Your task to perform on an android device: create a new album in the google photos Image 0: 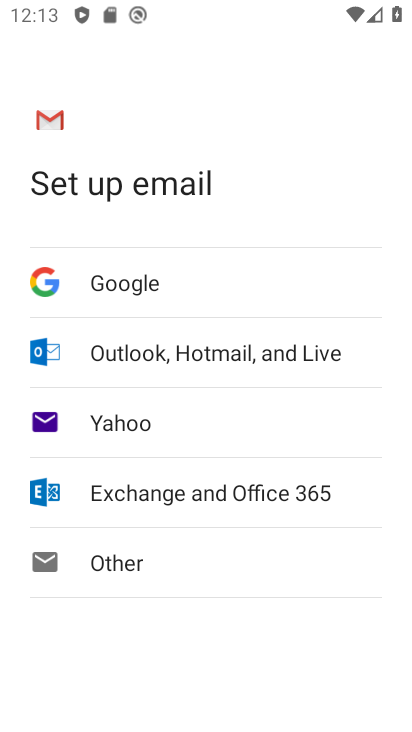
Step 0: press back button
Your task to perform on an android device: create a new album in the google photos Image 1: 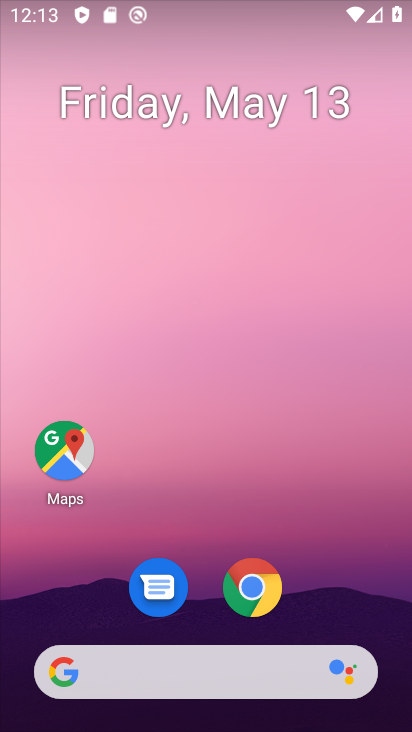
Step 1: drag from (187, 626) to (327, 162)
Your task to perform on an android device: create a new album in the google photos Image 2: 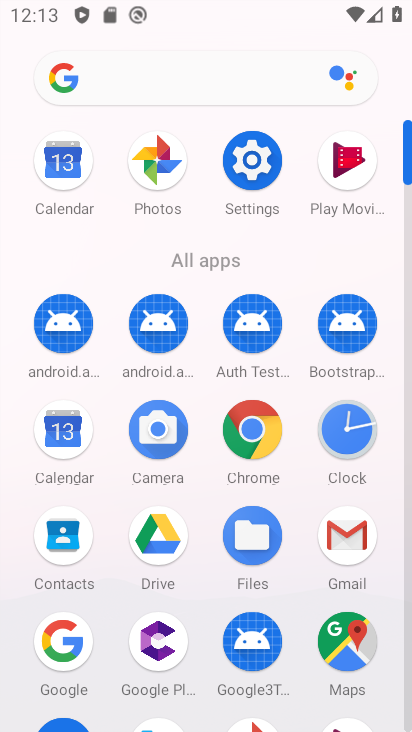
Step 2: drag from (184, 610) to (315, 142)
Your task to perform on an android device: create a new album in the google photos Image 3: 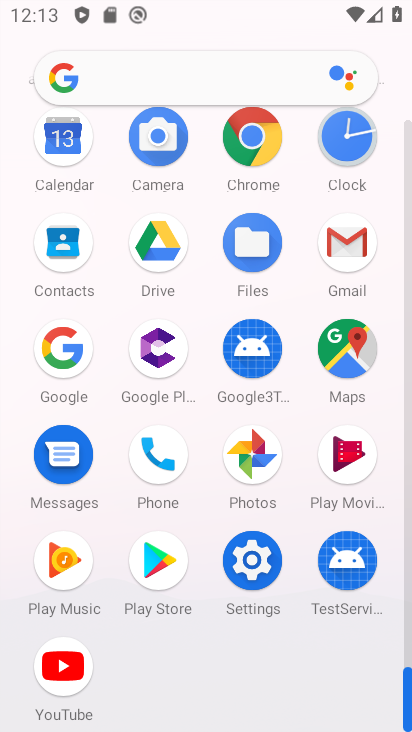
Step 3: click (258, 455)
Your task to perform on an android device: create a new album in the google photos Image 4: 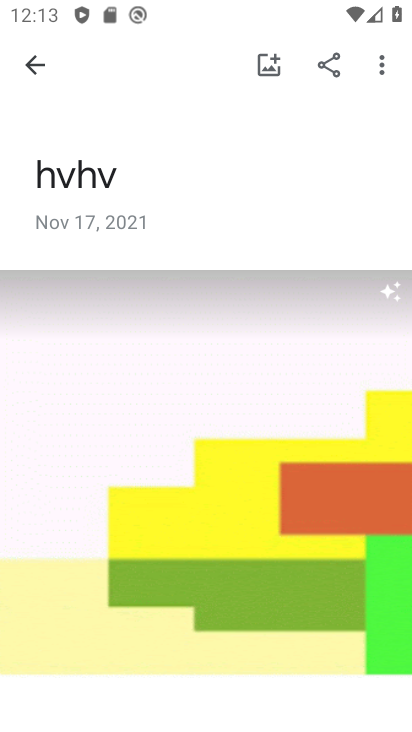
Step 4: click (36, 61)
Your task to perform on an android device: create a new album in the google photos Image 5: 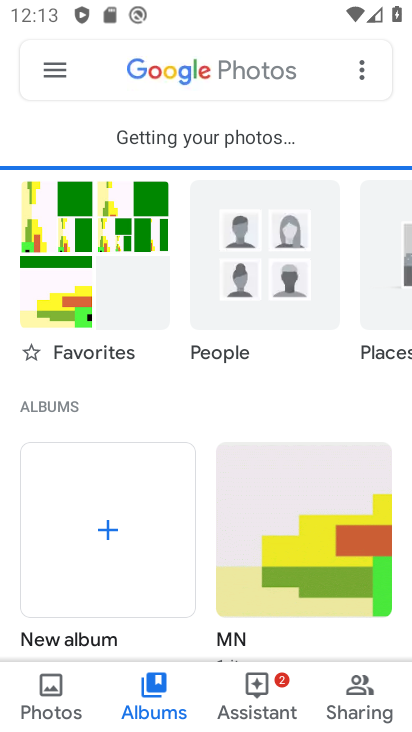
Step 5: click (88, 549)
Your task to perform on an android device: create a new album in the google photos Image 6: 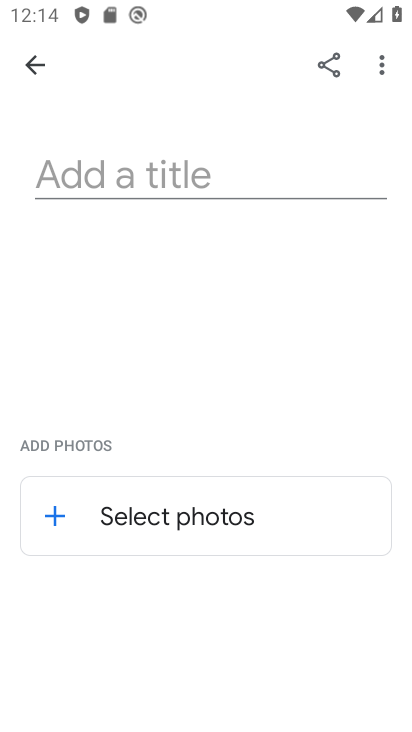
Step 6: click (100, 178)
Your task to perform on an android device: create a new album in the google photos Image 7: 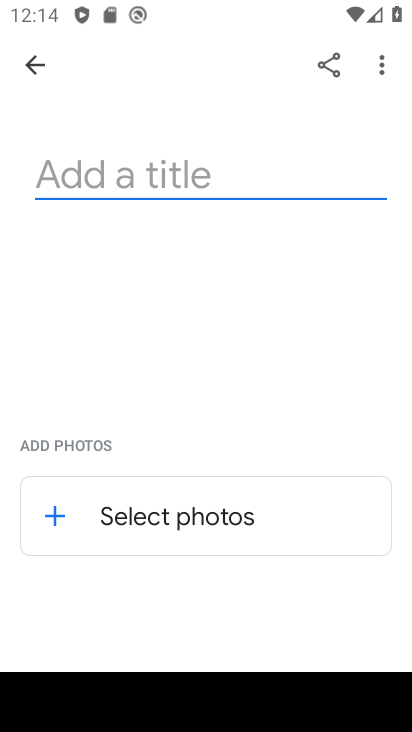
Step 7: type "vgv"
Your task to perform on an android device: create a new album in the google photos Image 8: 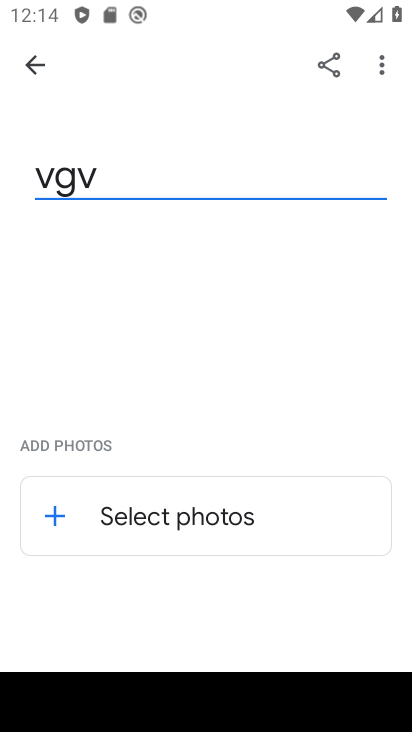
Step 8: click (249, 497)
Your task to perform on an android device: create a new album in the google photos Image 9: 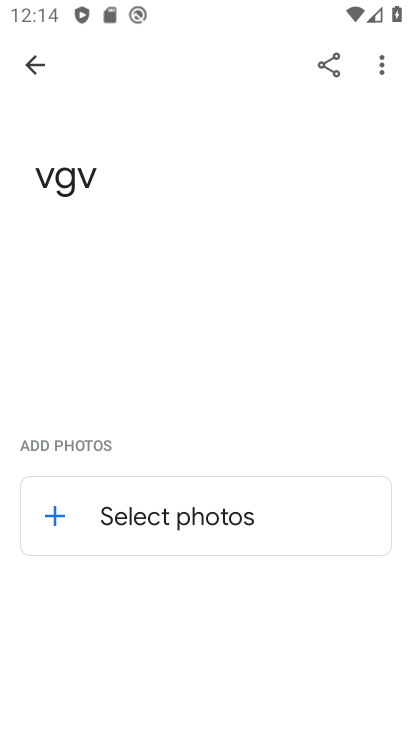
Step 9: click (170, 505)
Your task to perform on an android device: create a new album in the google photos Image 10: 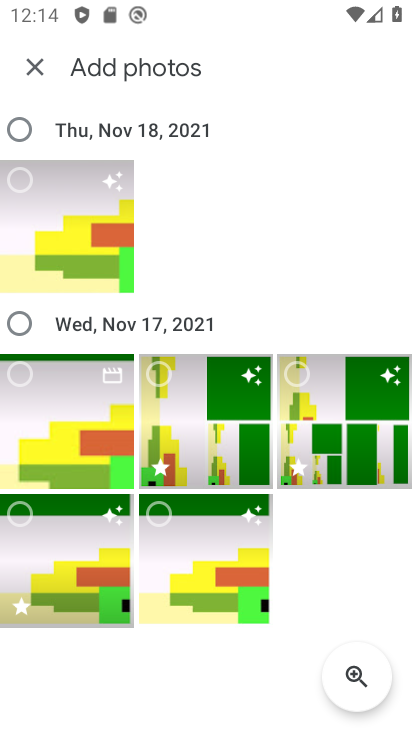
Step 10: click (26, 117)
Your task to perform on an android device: create a new album in the google photos Image 11: 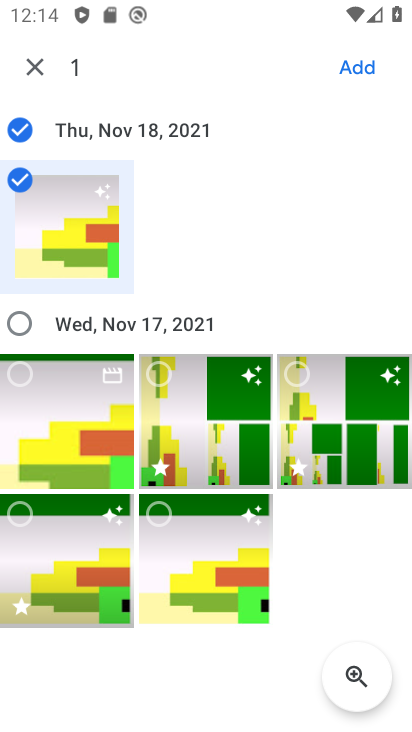
Step 11: click (369, 66)
Your task to perform on an android device: create a new album in the google photos Image 12: 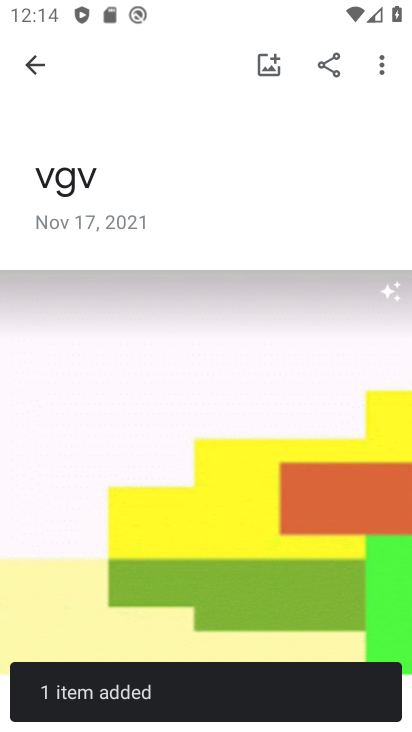
Step 12: task complete